Your task to perform on an android device: Go to battery settings Image 0: 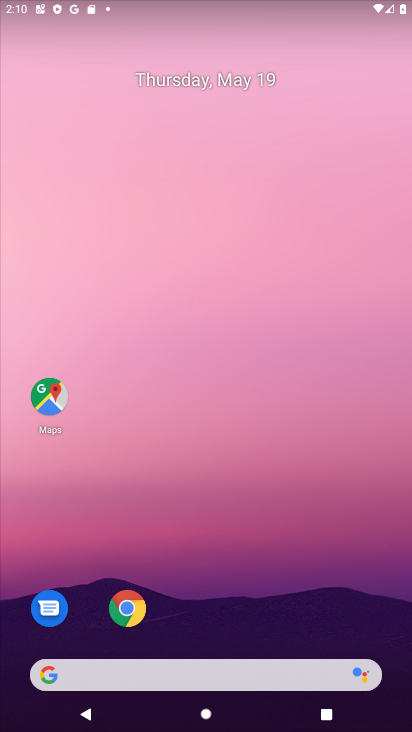
Step 0: drag from (256, 610) to (235, 123)
Your task to perform on an android device: Go to battery settings Image 1: 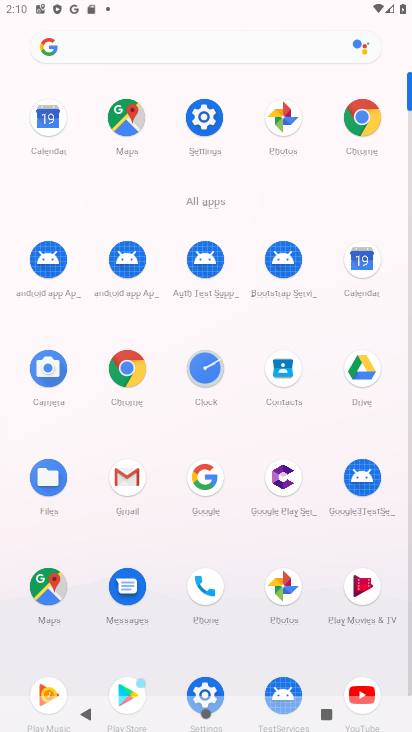
Step 1: click (212, 117)
Your task to perform on an android device: Go to battery settings Image 2: 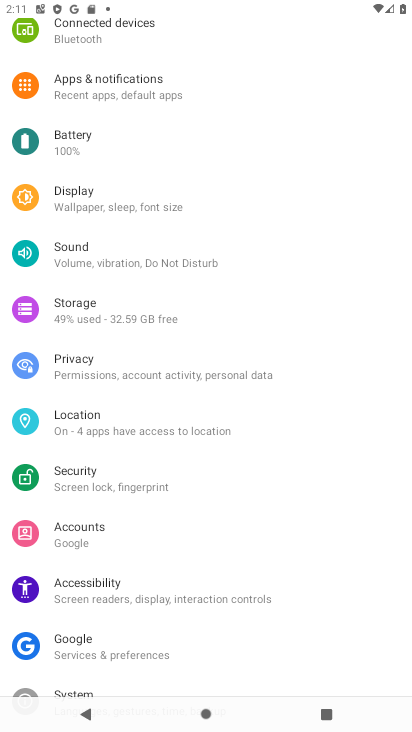
Step 2: click (192, 143)
Your task to perform on an android device: Go to battery settings Image 3: 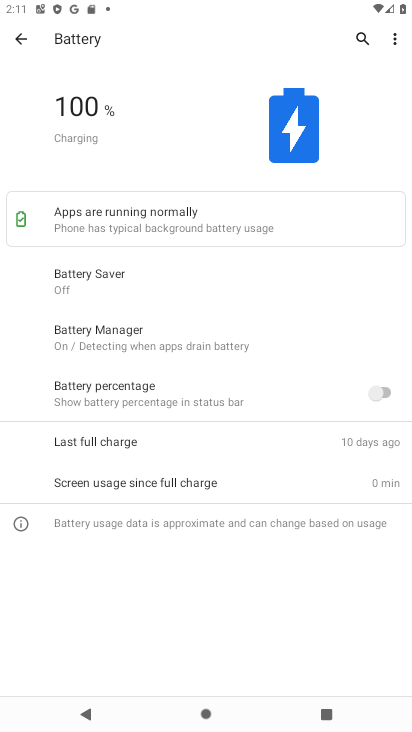
Step 3: task complete